Your task to perform on an android device: Open display settings Image 0: 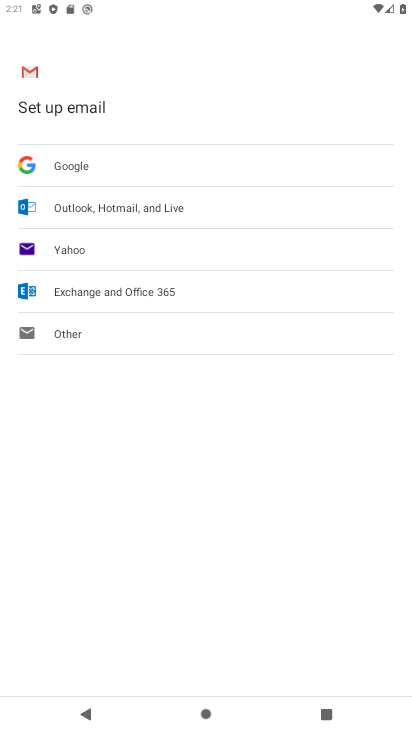
Step 0: press home button
Your task to perform on an android device: Open display settings Image 1: 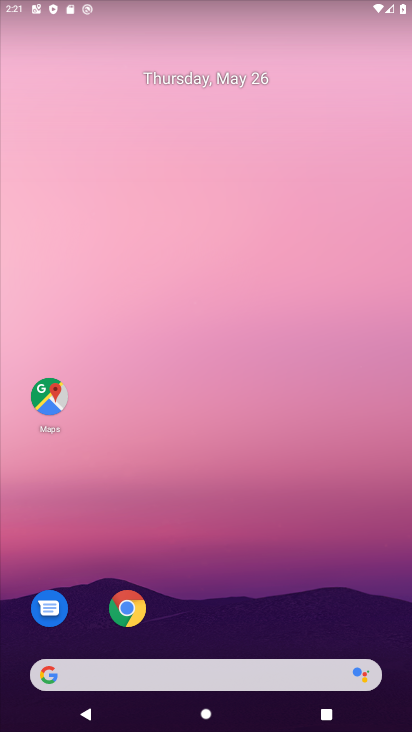
Step 1: drag from (297, 353) to (291, 91)
Your task to perform on an android device: Open display settings Image 2: 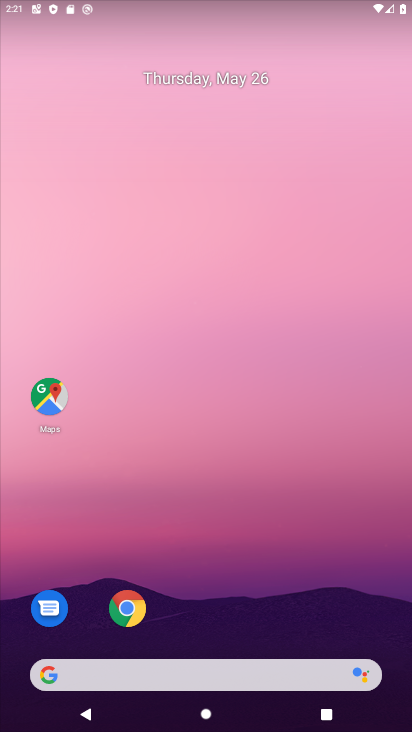
Step 2: drag from (300, 589) to (366, 12)
Your task to perform on an android device: Open display settings Image 3: 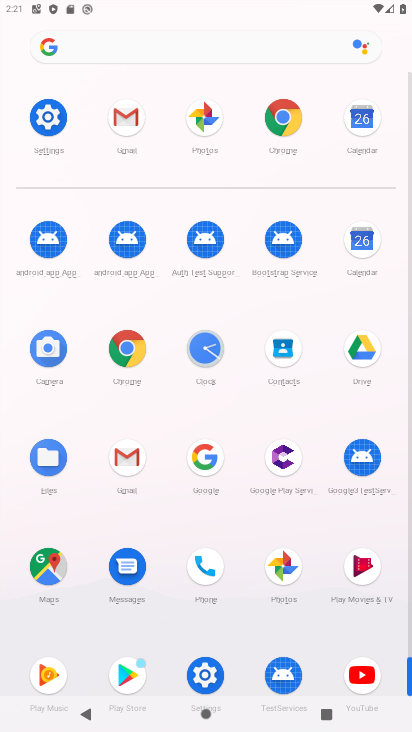
Step 3: click (51, 116)
Your task to perform on an android device: Open display settings Image 4: 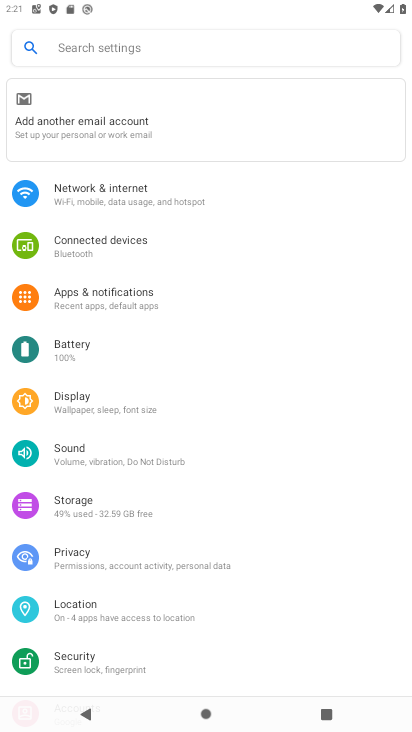
Step 4: click (104, 411)
Your task to perform on an android device: Open display settings Image 5: 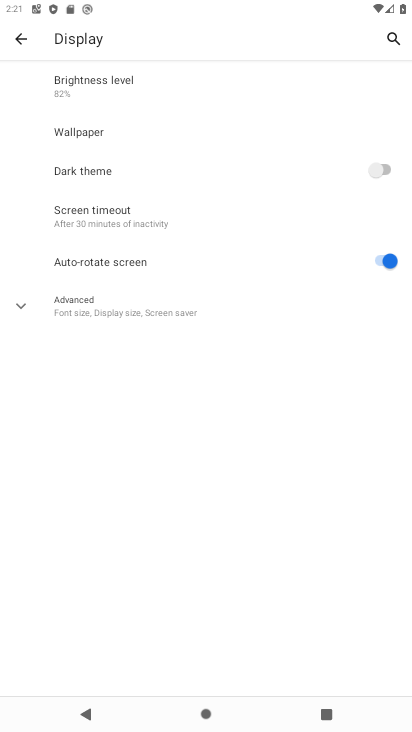
Step 5: task complete